Your task to perform on an android device: turn on showing notifications on the lock screen Image 0: 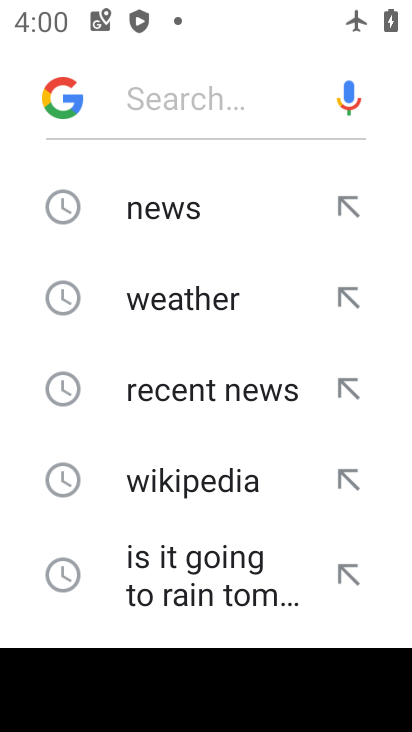
Step 0: press home button
Your task to perform on an android device: turn on showing notifications on the lock screen Image 1: 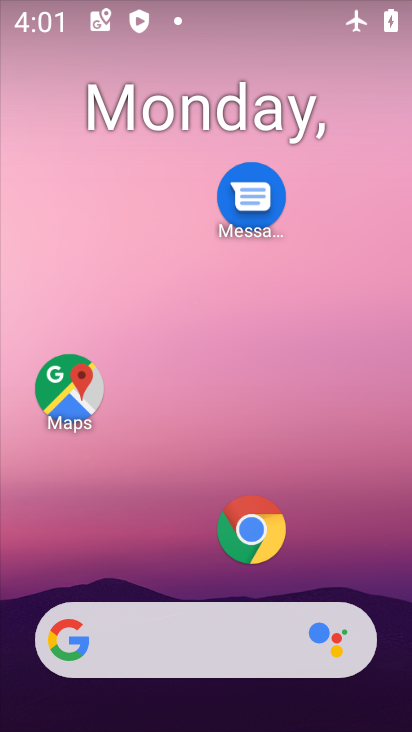
Step 1: drag from (205, 527) to (265, 38)
Your task to perform on an android device: turn on showing notifications on the lock screen Image 2: 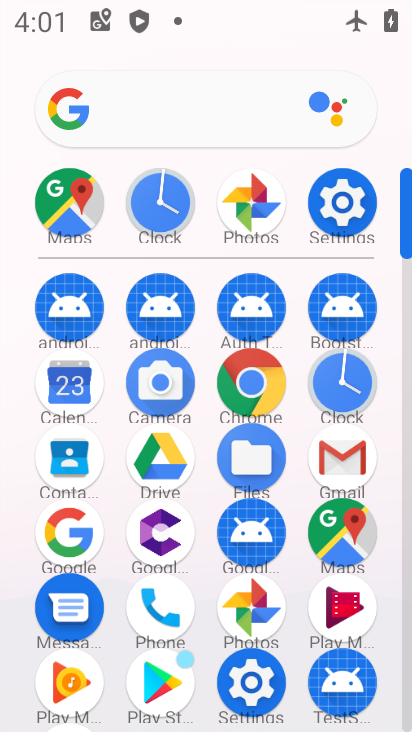
Step 2: click (327, 196)
Your task to perform on an android device: turn on showing notifications on the lock screen Image 3: 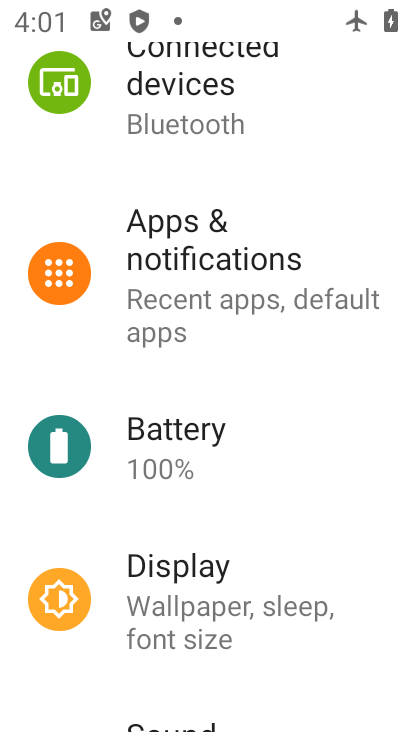
Step 3: click (143, 291)
Your task to perform on an android device: turn on showing notifications on the lock screen Image 4: 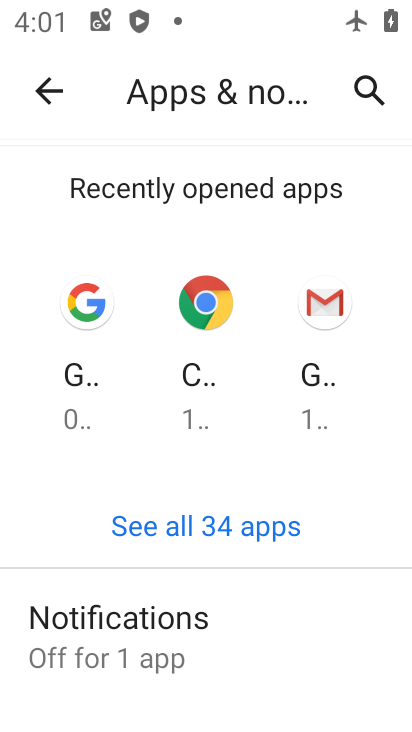
Step 4: click (148, 647)
Your task to perform on an android device: turn on showing notifications on the lock screen Image 5: 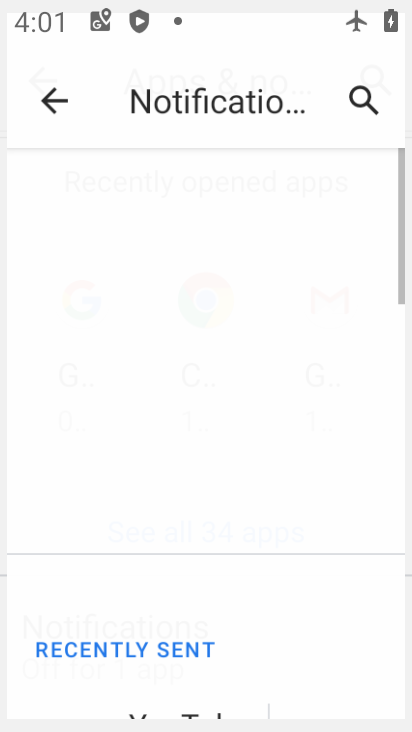
Step 5: drag from (148, 647) to (206, 146)
Your task to perform on an android device: turn on showing notifications on the lock screen Image 6: 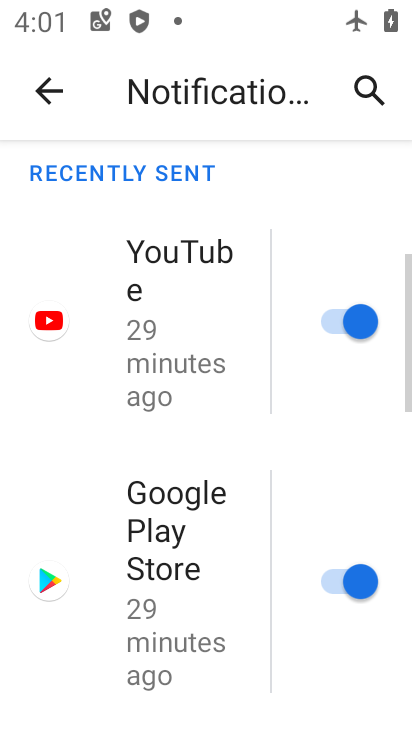
Step 6: drag from (179, 564) to (253, 37)
Your task to perform on an android device: turn on showing notifications on the lock screen Image 7: 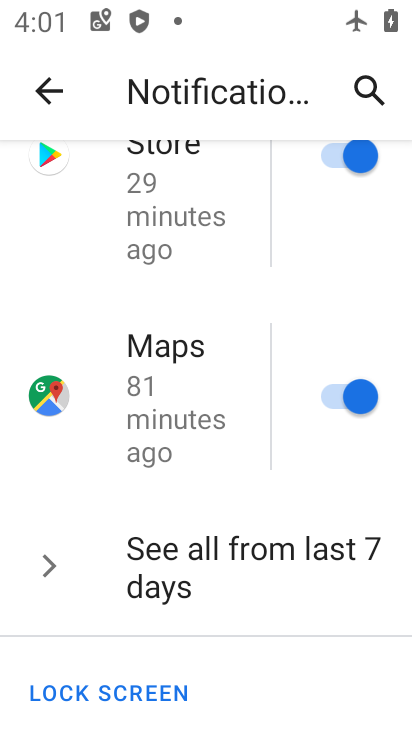
Step 7: drag from (191, 593) to (208, 240)
Your task to perform on an android device: turn on showing notifications on the lock screen Image 8: 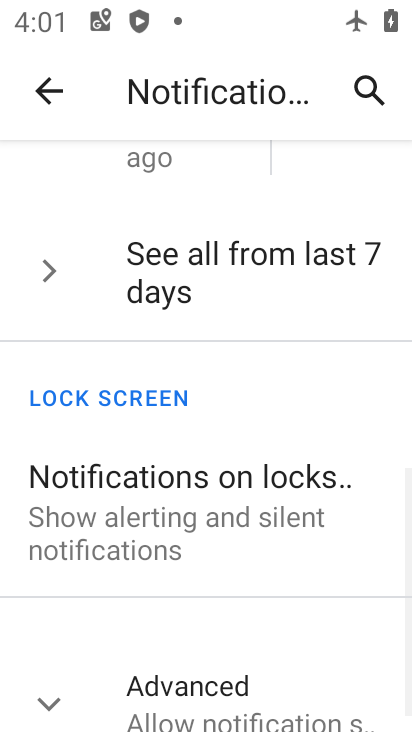
Step 8: click (152, 533)
Your task to perform on an android device: turn on showing notifications on the lock screen Image 9: 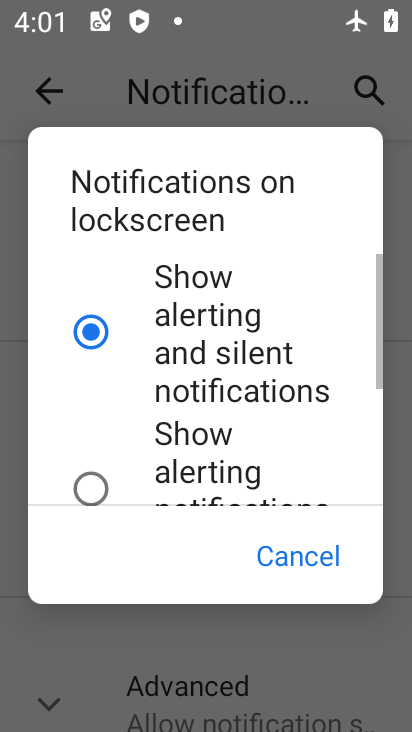
Step 9: click (113, 318)
Your task to perform on an android device: turn on showing notifications on the lock screen Image 10: 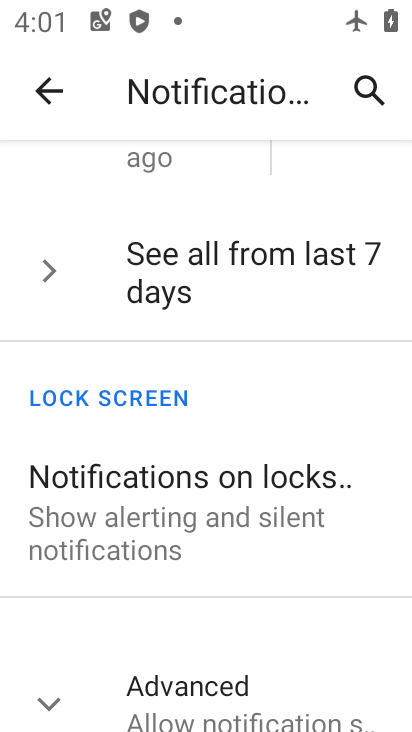
Step 10: task complete